Your task to perform on an android device: Open the calendar app, open the side menu, and click the "Day" option Image 0: 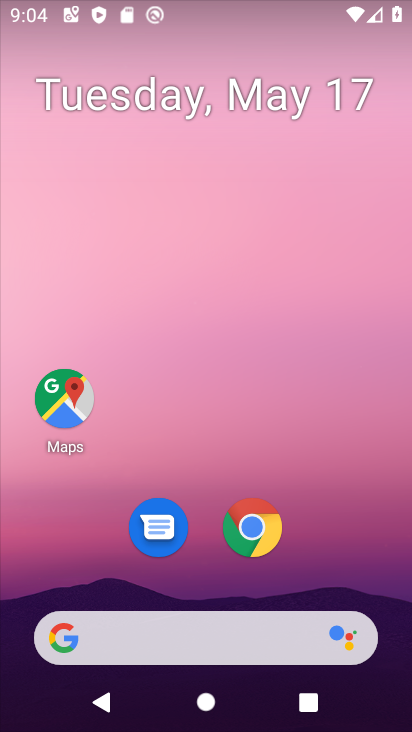
Step 0: drag from (228, 652) to (363, 125)
Your task to perform on an android device: Open the calendar app, open the side menu, and click the "Day" option Image 1: 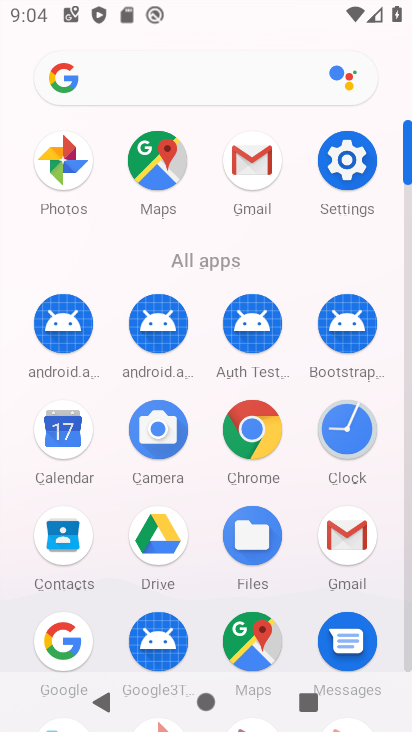
Step 1: click (67, 435)
Your task to perform on an android device: Open the calendar app, open the side menu, and click the "Day" option Image 2: 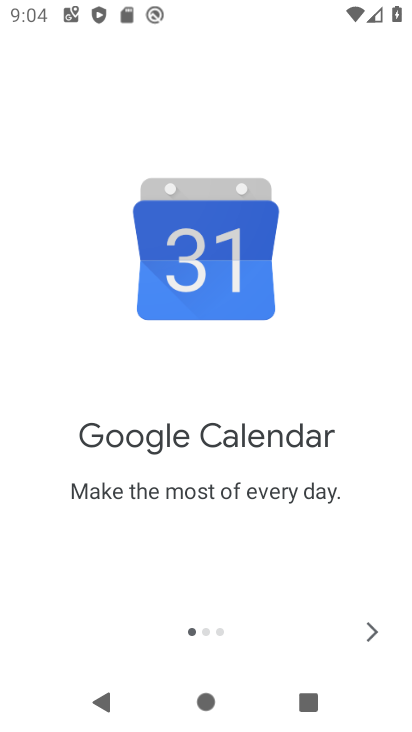
Step 2: click (369, 630)
Your task to perform on an android device: Open the calendar app, open the side menu, and click the "Day" option Image 3: 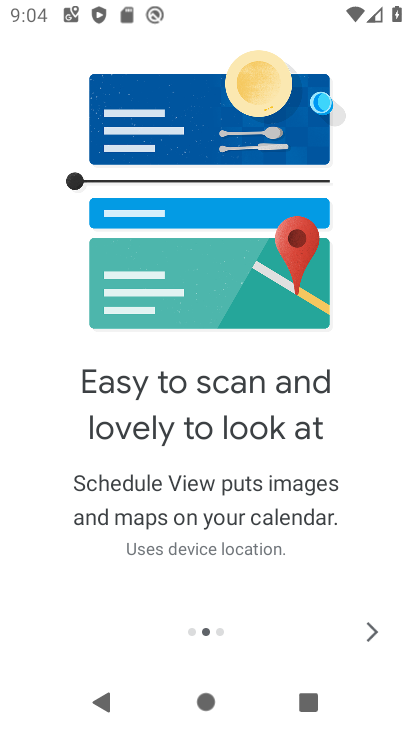
Step 3: click (369, 630)
Your task to perform on an android device: Open the calendar app, open the side menu, and click the "Day" option Image 4: 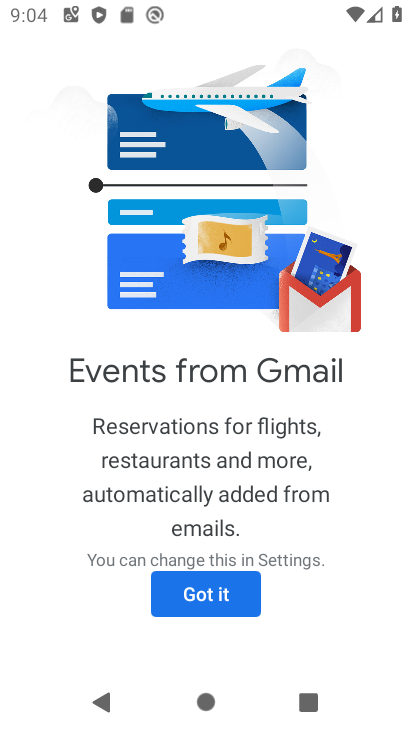
Step 4: click (232, 598)
Your task to perform on an android device: Open the calendar app, open the side menu, and click the "Day" option Image 5: 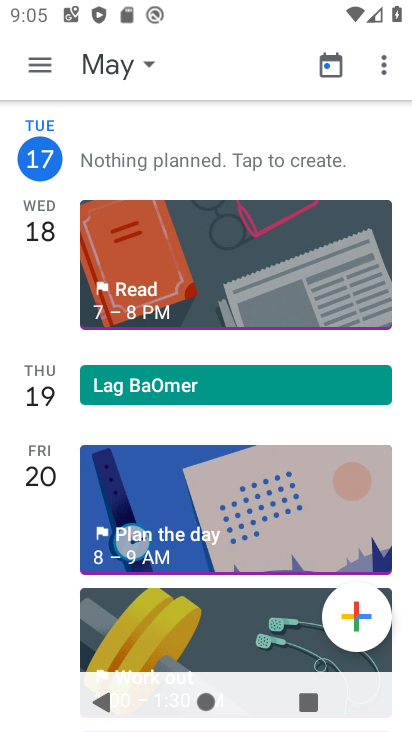
Step 5: click (52, 62)
Your task to perform on an android device: Open the calendar app, open the side menu, and click the "Day" option Image 6: 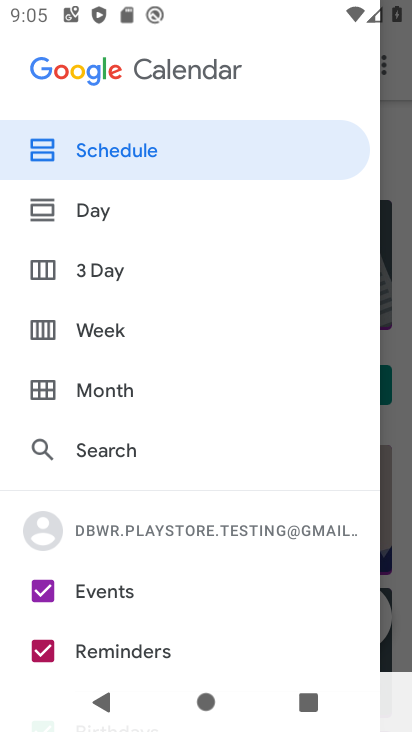
Step 6: click (104, 214)
Your task to perform on an android device: Open the calendar app, open the side menu, and click the "Day" option Image 7: 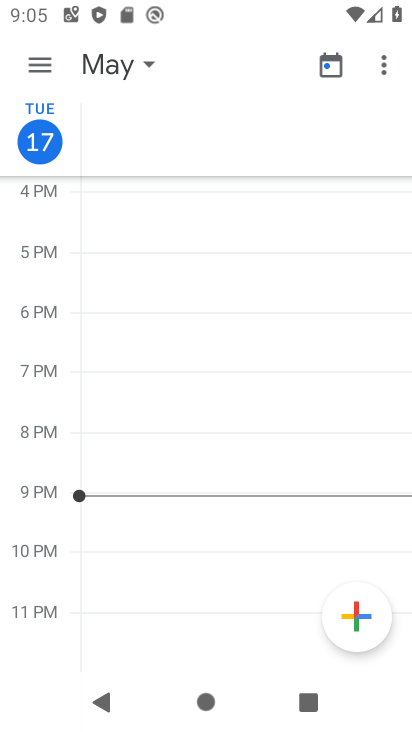
Step 7: task complete